Your task to perform on an android device: Go to display settings Image 0: 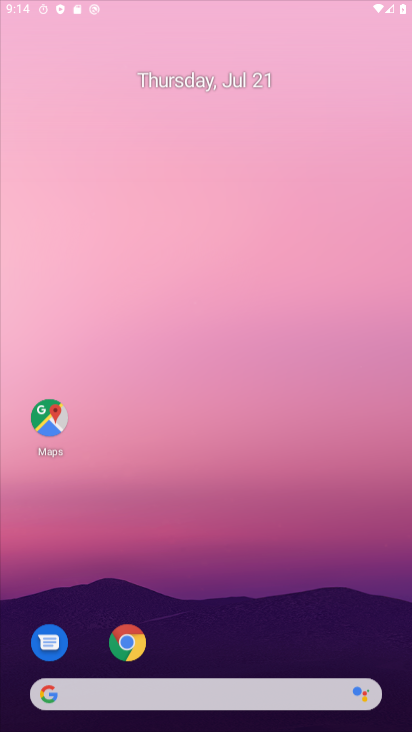
Step 0: click (275, 226)
Your task to perform on an android device: Go to display settings Image 1: 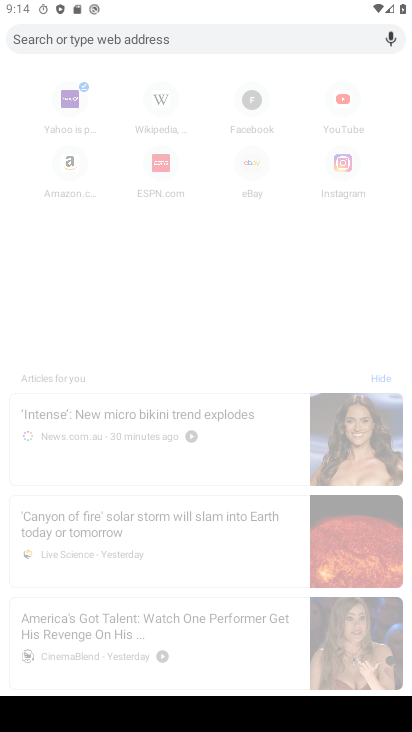
Step 1: press back button
Your task to perform on an android device: Go to display settings Image 2: 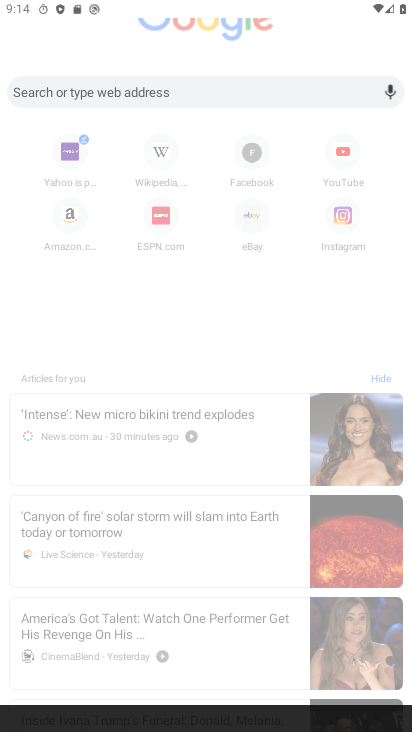
Step 2: press back button
Your task to perform on an android device: Go to display settings Image 3: 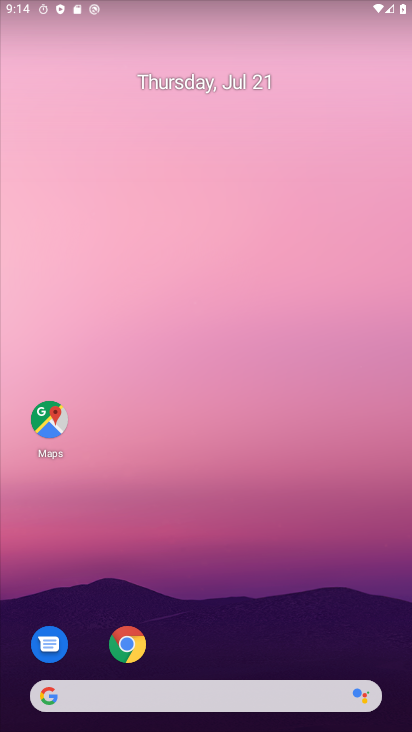
Step 3: drag from (254, 653) to (237, 245)
Your task to perform on an android device: Go to display settings Image 4: 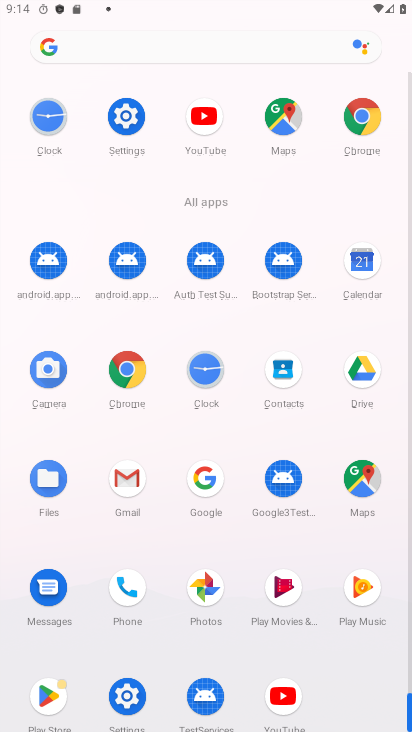
Step 4: click (125, 120)
Your task to perform on an android device: Go to display settings Image 5: 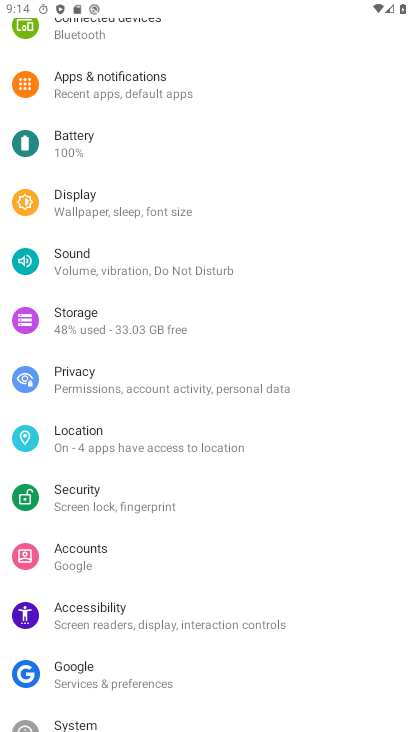
Step 5: click (81, 212)
Your task to perform on an android device: Go to display settings Image 6: 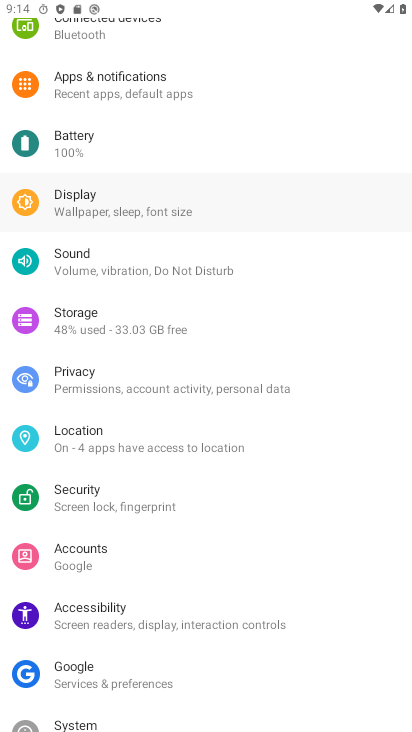
Step 6: click (81, 210)
Your task to perform on an android device: Go to display settings Image 7: 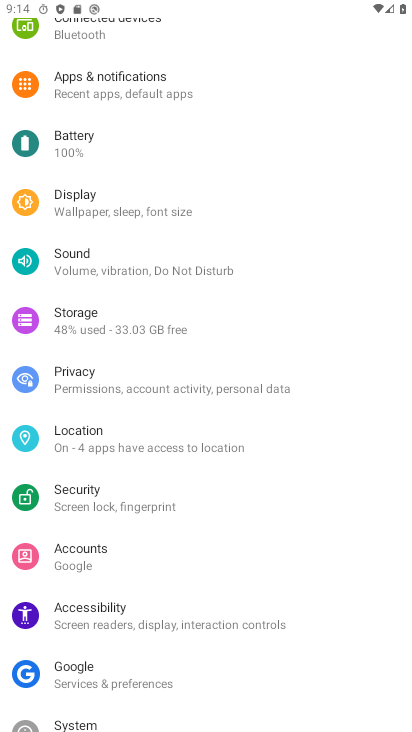
Step 7: click (81, 210)
Your task to perform on an android device: Go to display settings Image 8: 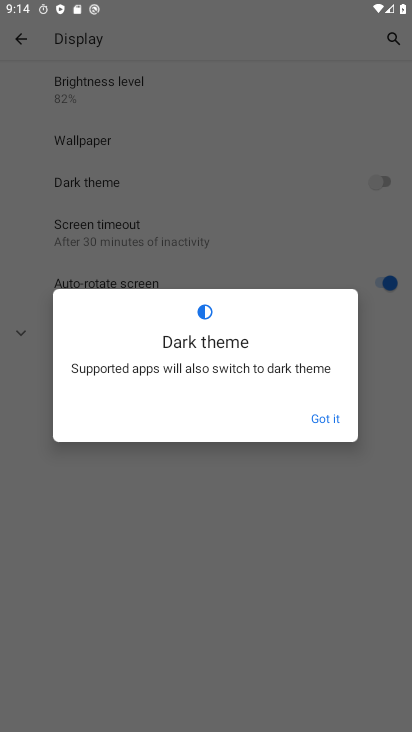
Step 8: click (320, 414)
Your task to perform on an android device: Go to display settings Image 9: 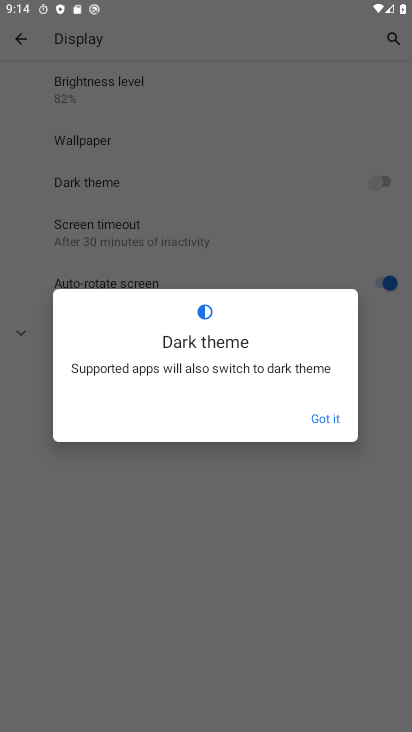
Step 9: click (319, 413)
Your task to perform on an android device: Go to display settings Image 10: 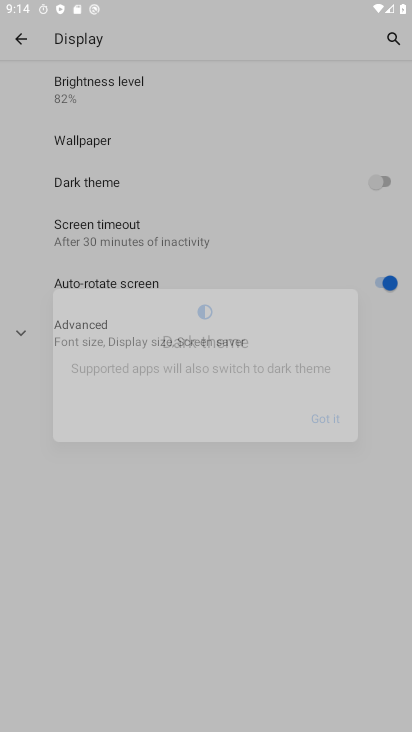
Step 10: click (319, 413)
Your task to perform on an android device: Go to display settings Image 11: 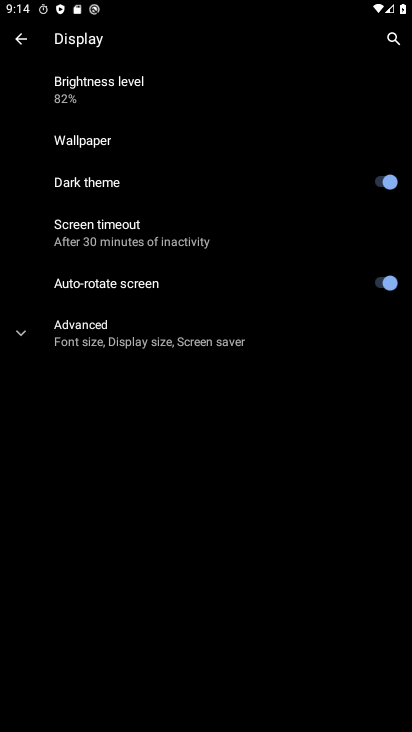
Step 11: click (384, 187)
Your task to perform on an android device: Go to display settings Image 12: 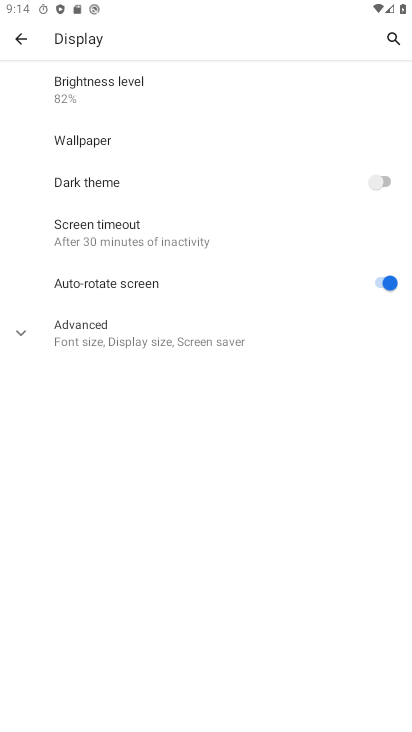
Step 12: task complete